Your task to perform on an android device: turn smart compose on in the gmail app Image 0: 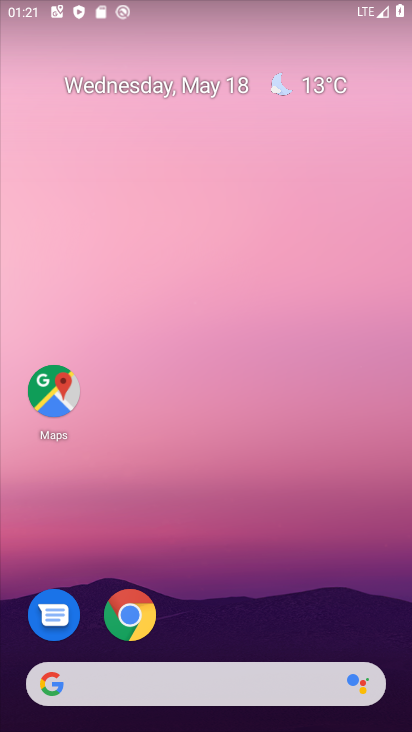
Step 0: press home button
Your task to perform on an android device: turn smart compose on in the gmail app Image 1: 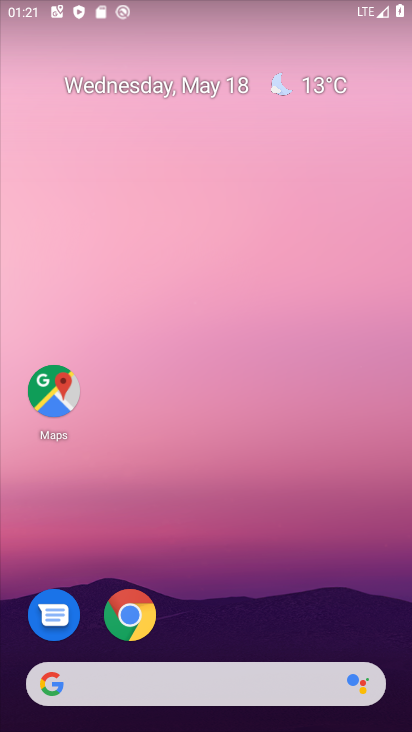
Step 1: drag from (140, 686) to (236, 170)
Your task to perform on an android device: turn smart compose on in the gmail app Image 2: 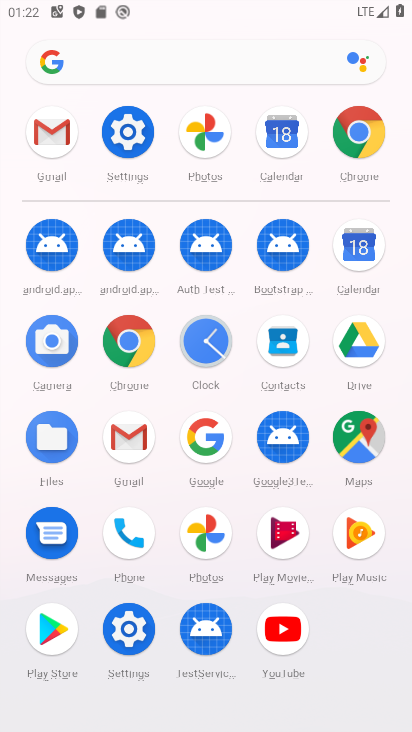
Step 2: click (58, 146)
Your task to perform on an android device: turn smart compose on in the gmail app Image 3: 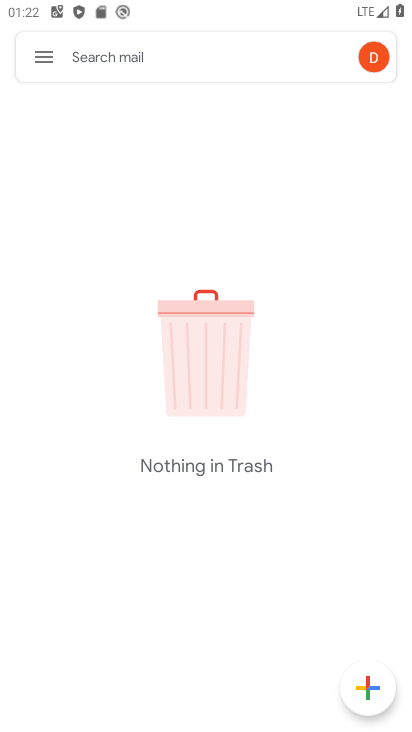
Step 3: click (47, 59)
Your task to perform on an android device: turn smart compose on in the gmail app Image 4: 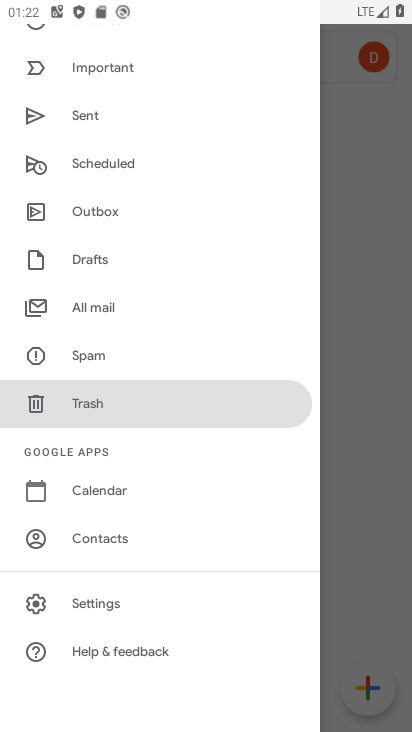
Step 4: click (104, 599)
Your task to perform on an android device: turn smart compose on in the gmail app Image 5: 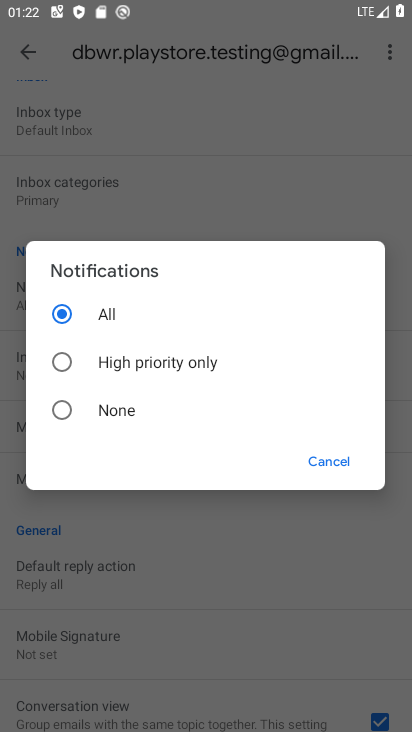
Step 5: click (327, 460)
Your task to perform on an android device: turn smart compose on in the gmail app Image 6: 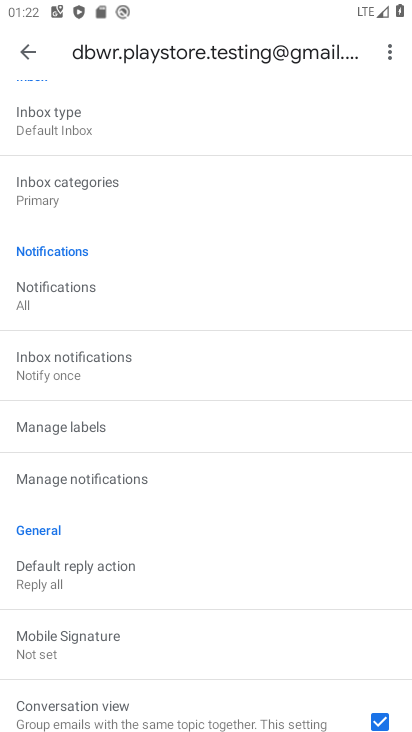
Step 6: task complete